Your task to perform on an android device: change alarm snooze length Image 0: 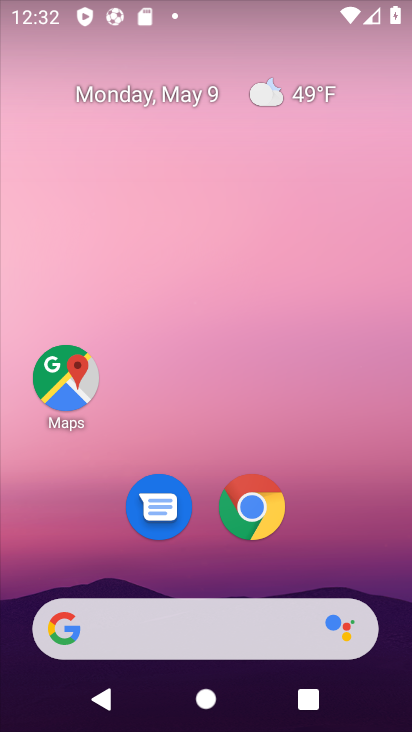
Step 0: drag from (195, 610) to (293, 94)
Your task to perform on an android device: change alarm snooze length Image 1: 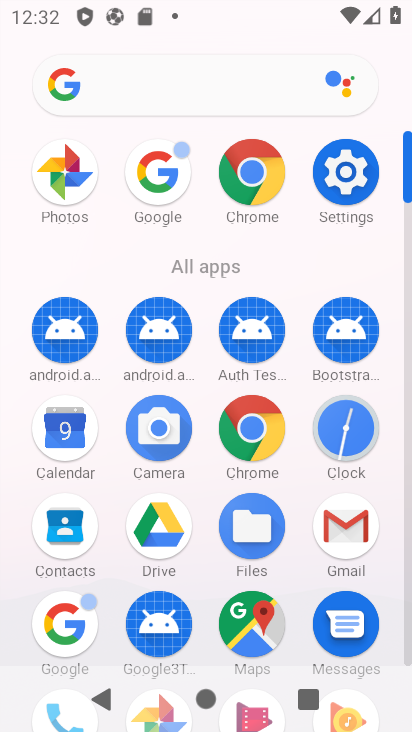
Step 1: click (357, 445)
Your task to perform on an android device: change alarm snooze length Image 2: 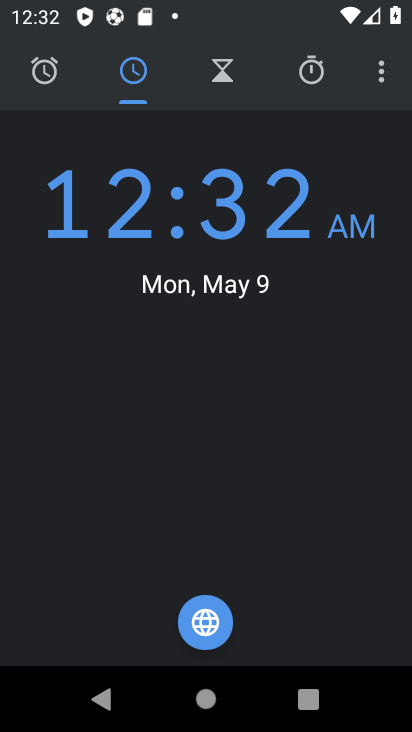
Step 2: click (376, 79)
Your task to perform on an android device: change alarm snooze length Image 3: 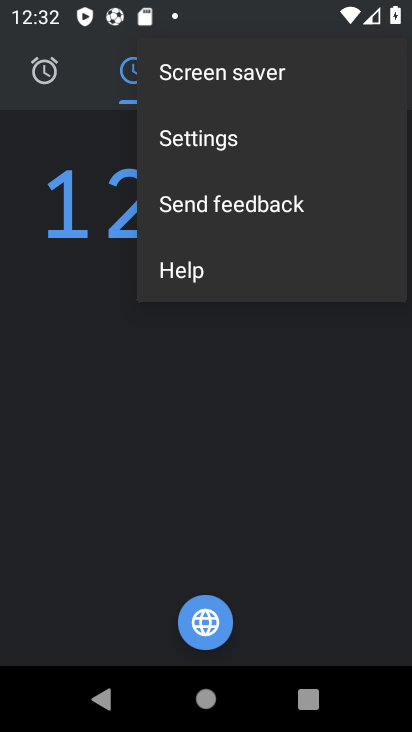
Step 3: click (209, 142)
Your task to perform on an android device: change alarm snooze length Image 4: 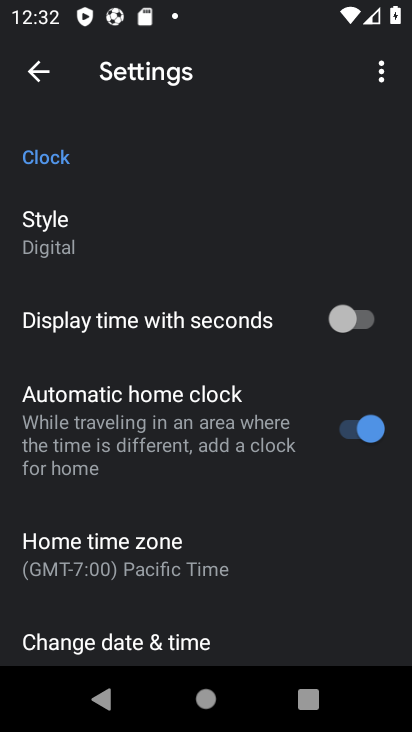
Step 4: drag from (112, 634) to (163, 308)
Your task to perform on an android device: change alarm snooze length Image 5: 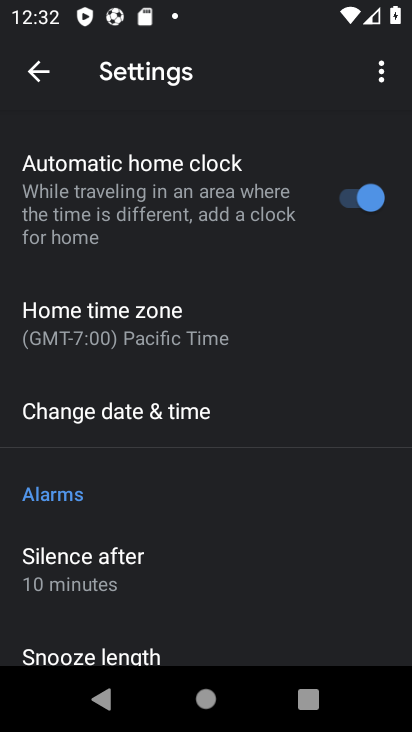
Step 5: drag from (72, 621) to (103, 305)
Your task to perform on an android device: change alarm snooze length Image 6: 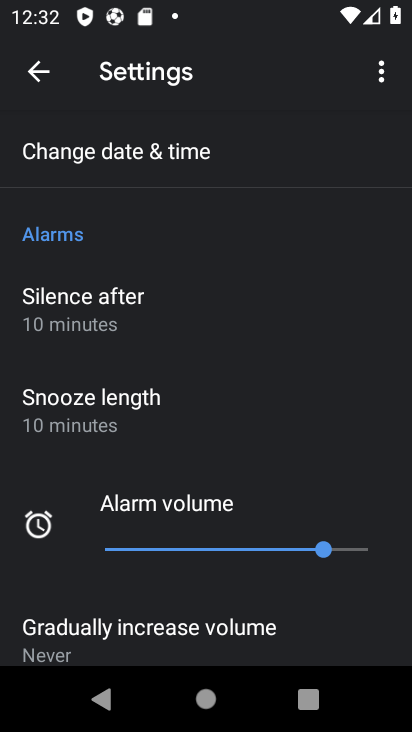
Step 6: click (59, 415)
Your task to perform on an android device: change alarm snooze length Image 7: 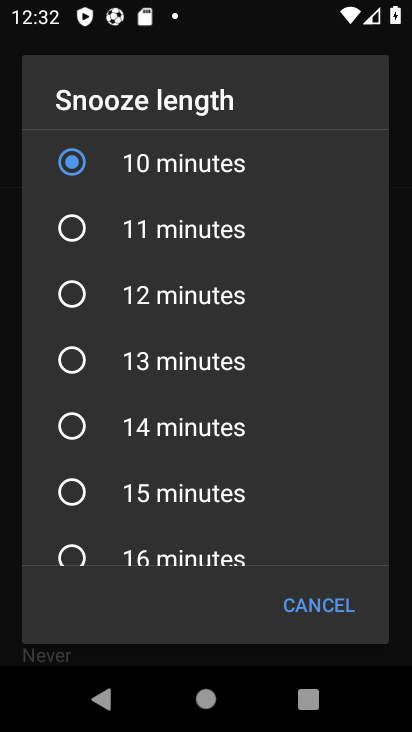
Step 7: drag from (81, 552) to (126, 292)
Your task to perform on an android device: change alarm snooze length Image 8: 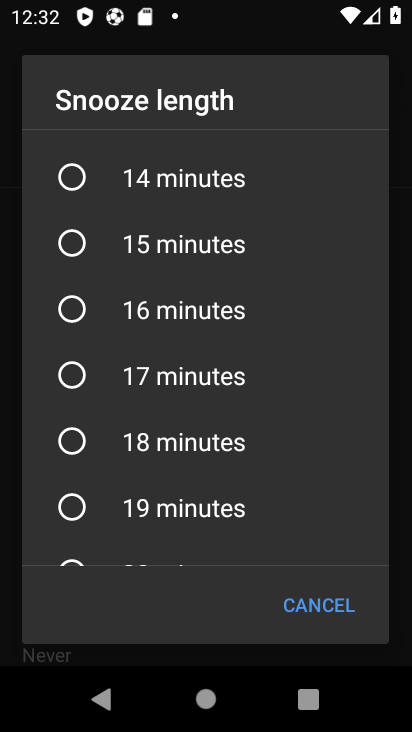
Step 8: click (85, 253)
Your task to perform on an android device: change alarm snooze length Image 9: 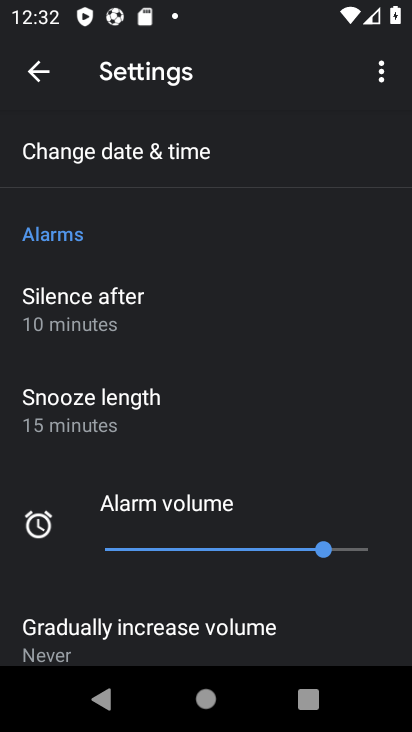
Step 9: task complete